Your task to perform on an android device: turn notification dots off Image 0: 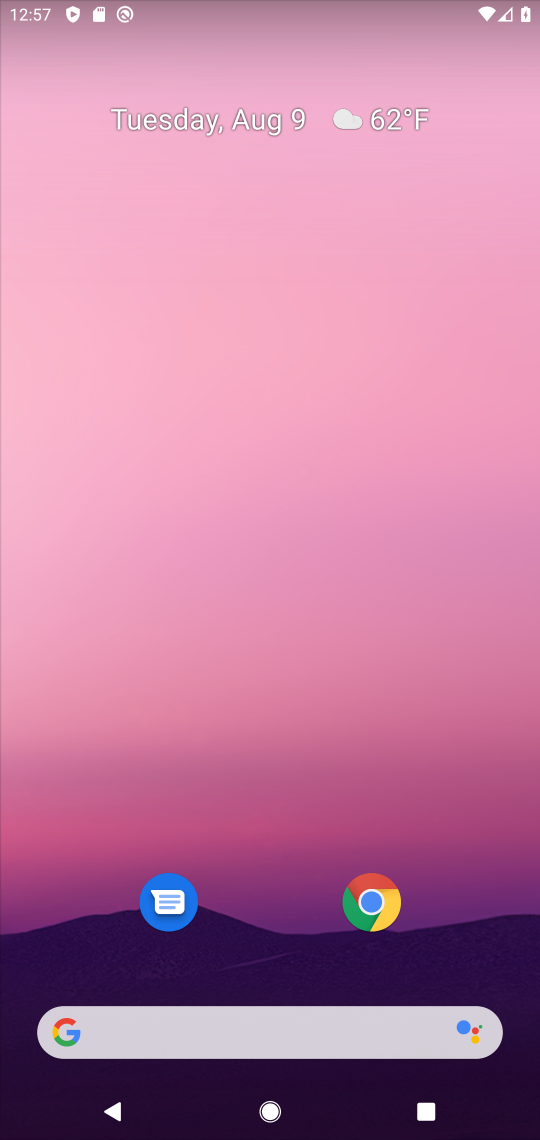
Step 0: drag from (307, 1020) to (178, 293)
Your task to perform on an android device: turn notification dots off Image 1: 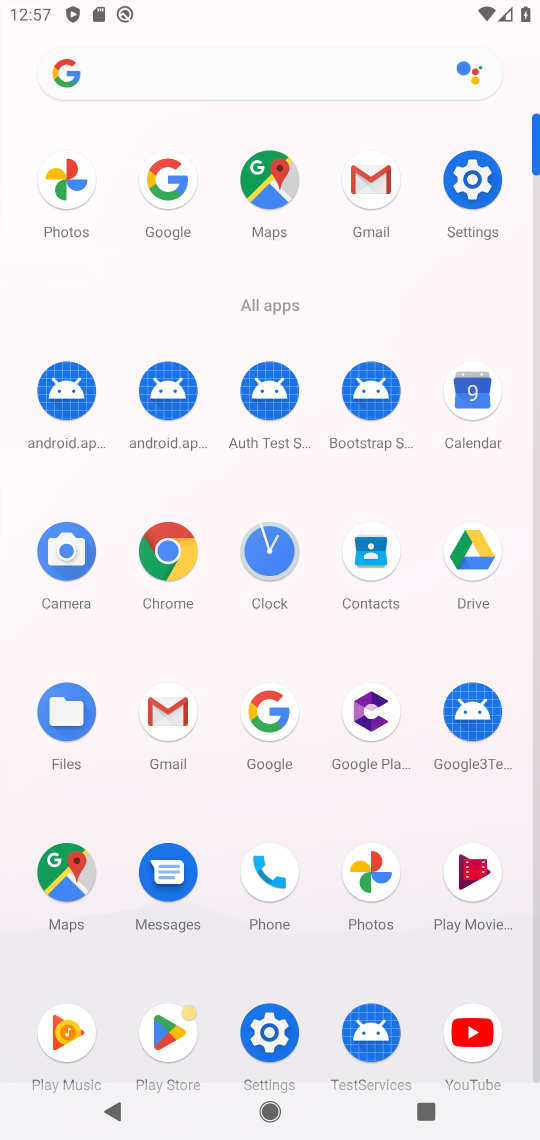
Step 1: click (478, 180)
Your task to perform on an android device: turn notification dots off Image 2: 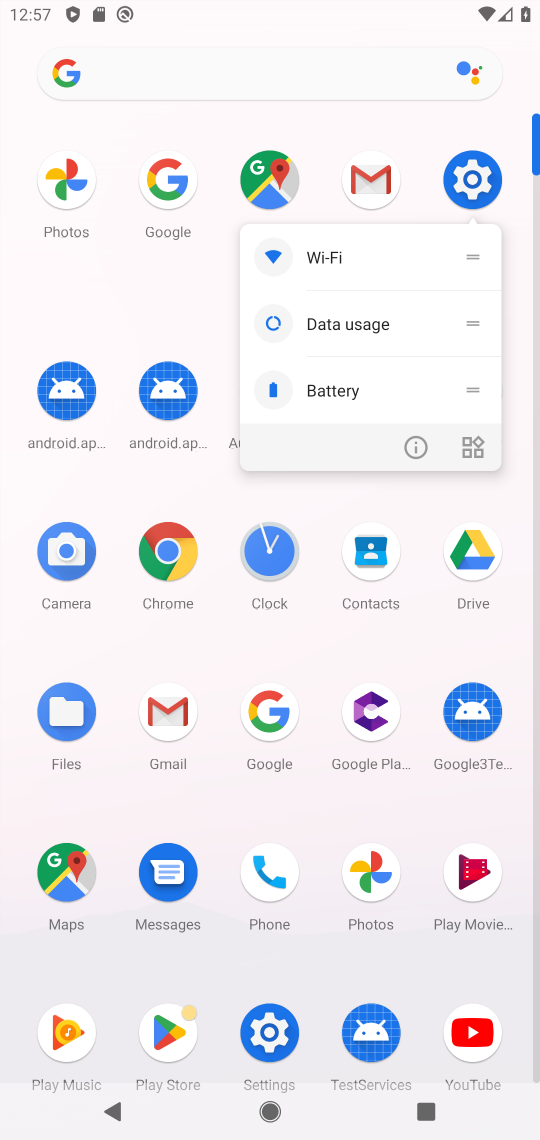
Step 2: click (478, 170)
Your task to perform on an android device: turn notification dots off Image 3: 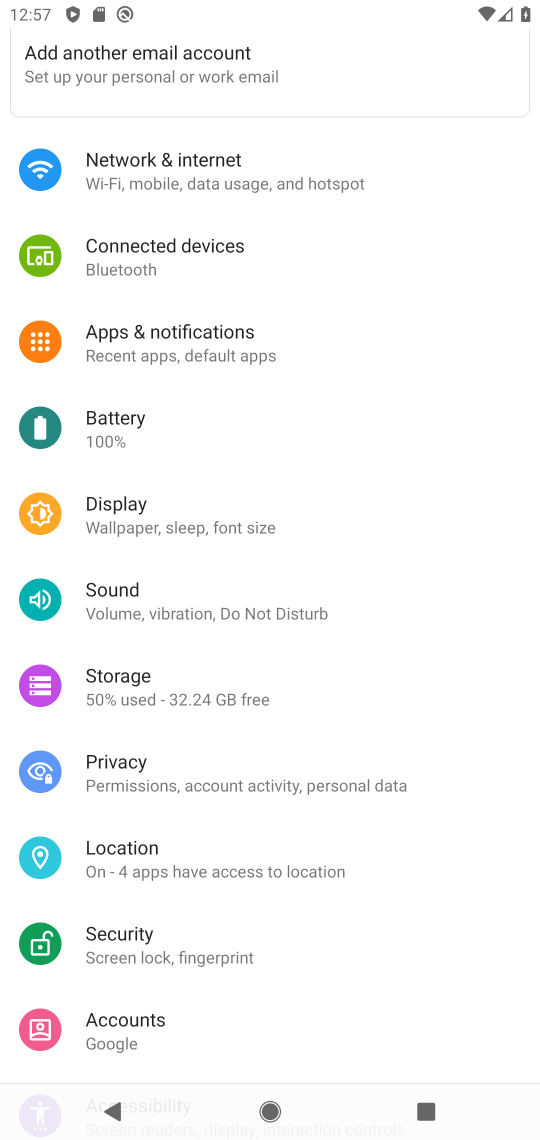
Step 3: click (169, 339)
Your task to perform on an android device: turn notification dots off Image 4: 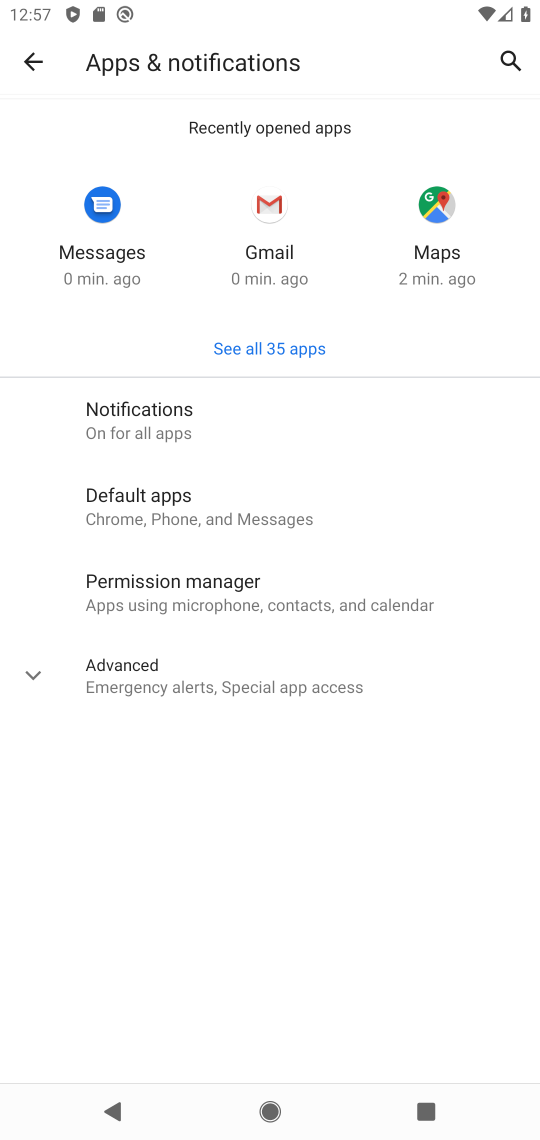
Step 4: click (115, 664)
Your task to perform on an android device: turn notification dots off Image 5: 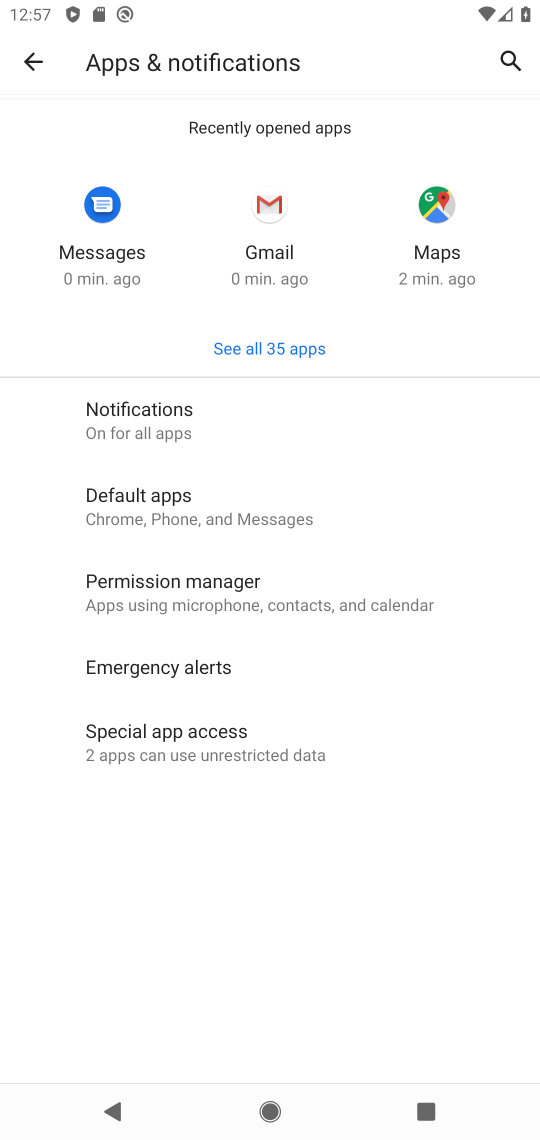
Step 5: click (160, 416)
Your task to perform on an android device: turn notification dots off Image 6: 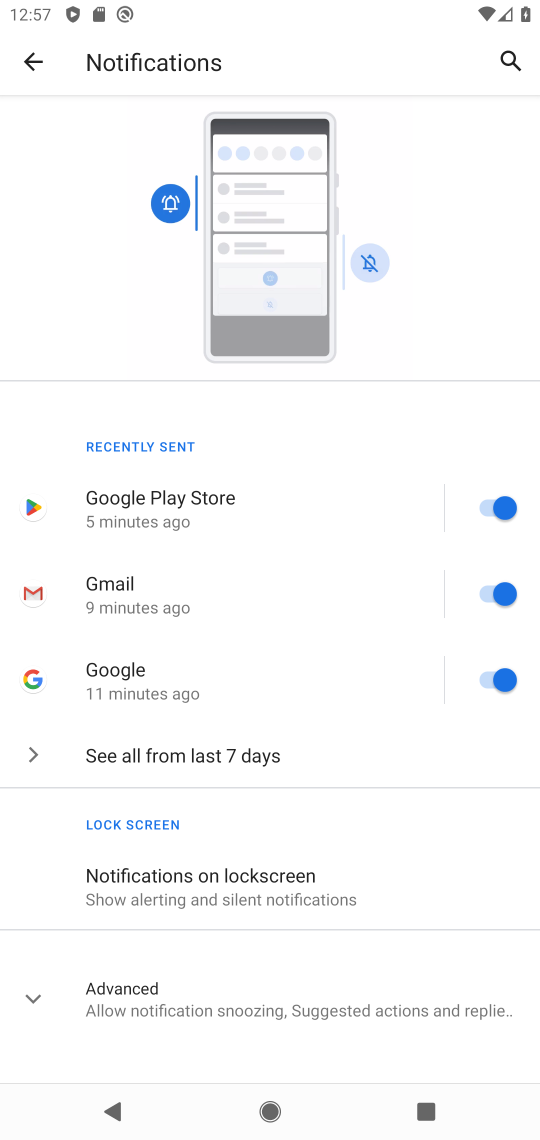
Step 6: click (131, 402)
Your task to perform on an android device: turn notification dots off Image 7: 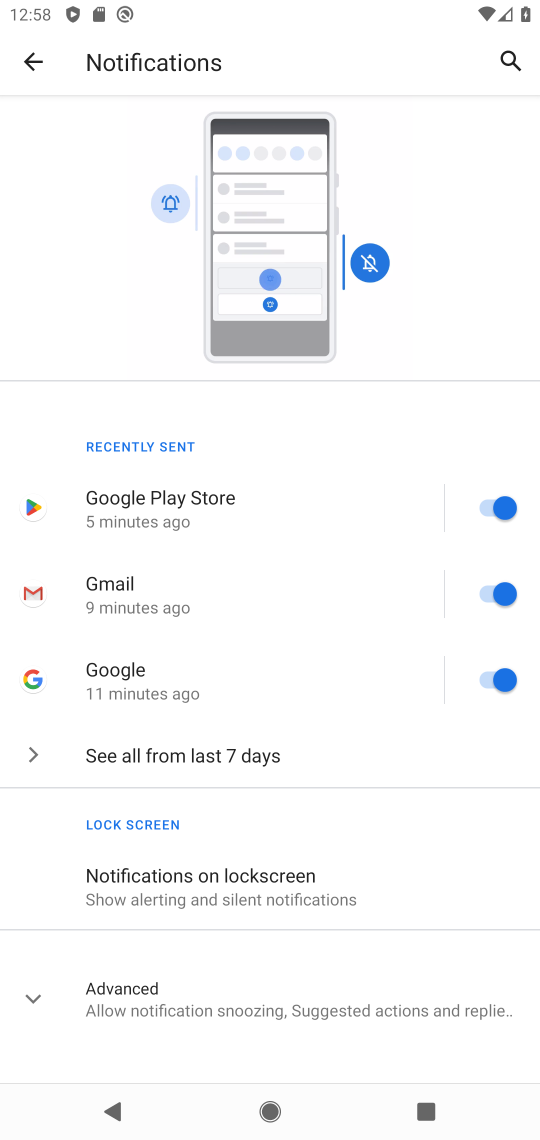
Step 7: drag from (250, 922) to (100, 413)
Your task to perform on an android device: turn notification dots off Image 8: 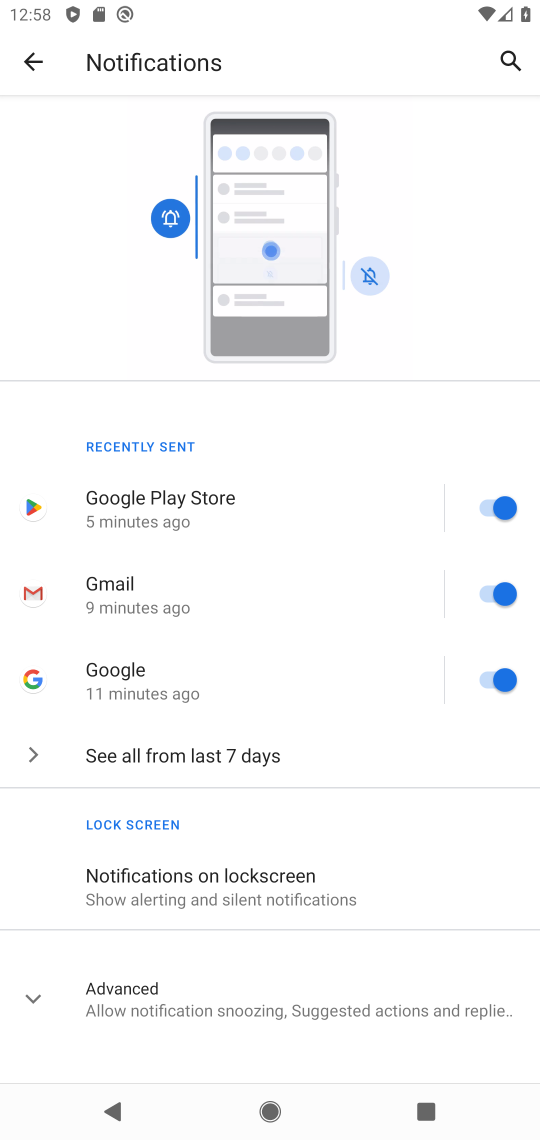
Step 8: click (119, 996)
Your task to perform on an android device: turn notification dots off Image 9: 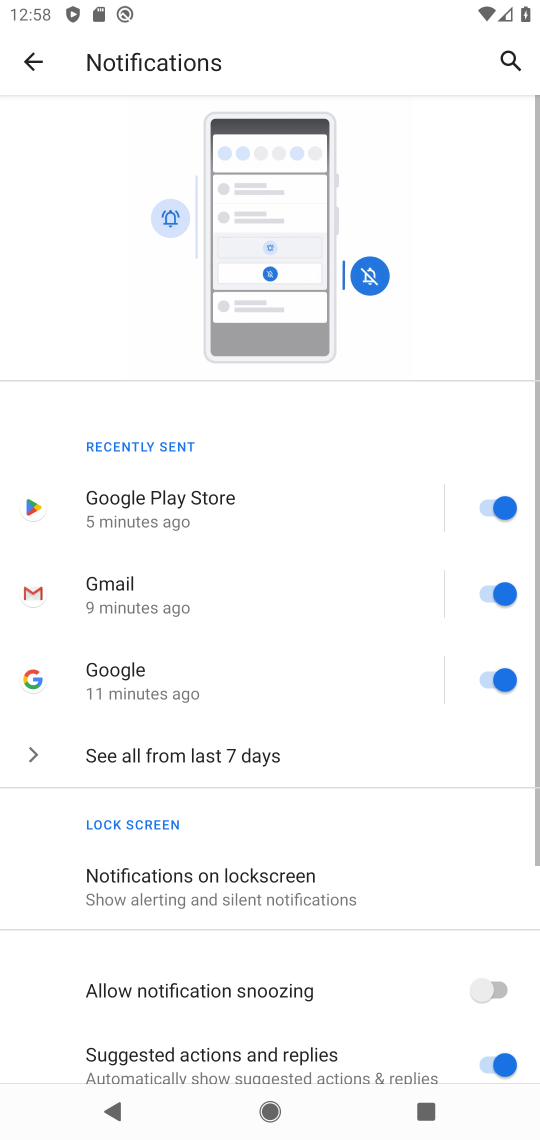
Step 9: click (116, 410)
Your task to perform on an android device: turn notification dots off Image 10: 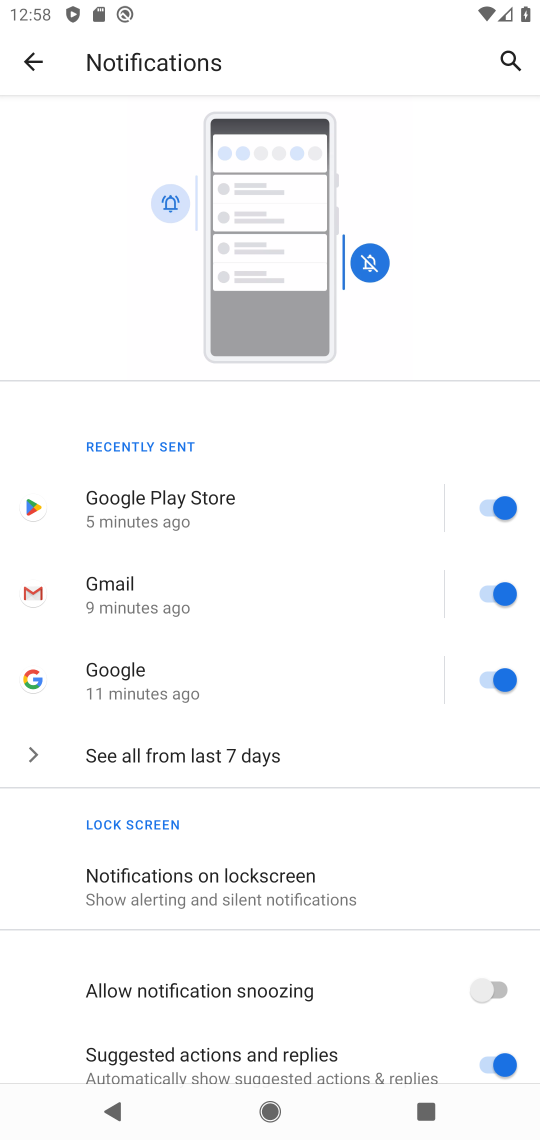
Step 10: drag from (436, 1046) to (393, 502)
Your task to perform on an android device: turn notification dots off Image 11: 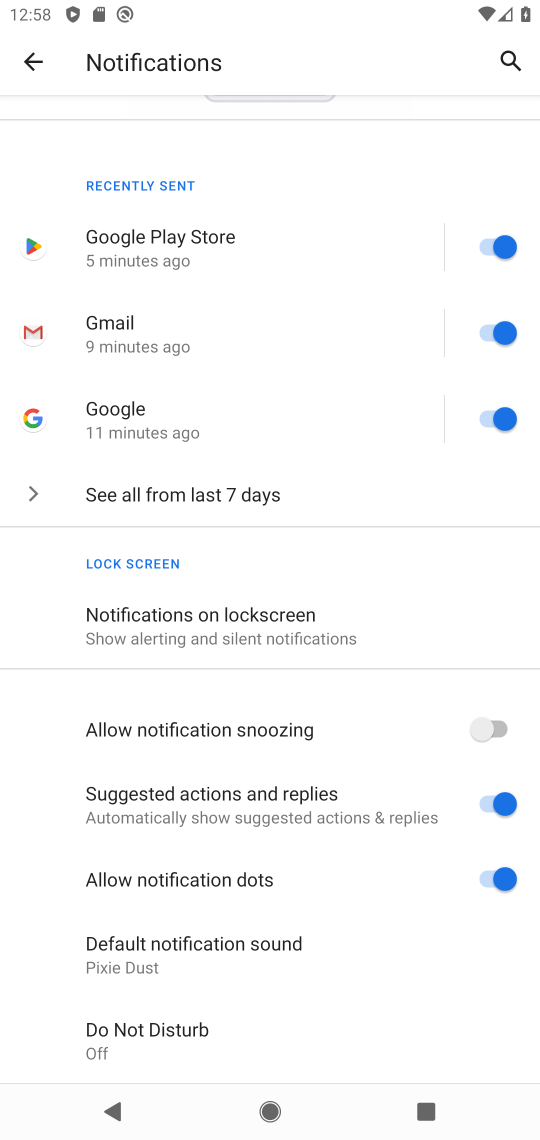
Step 11: click (482, 873)
Your task to perform on an android device: turn notification dots off Image 12: 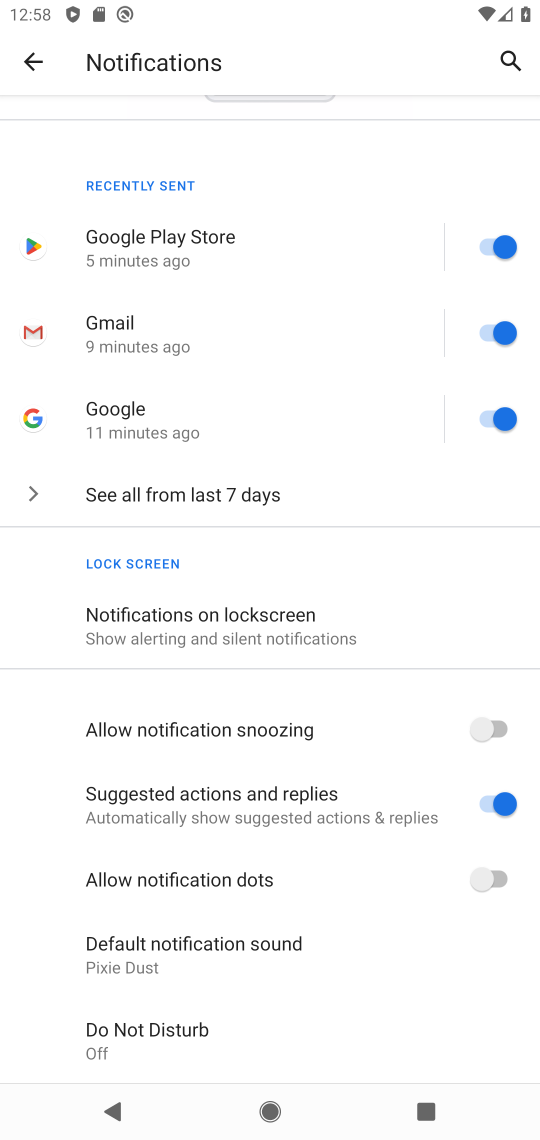
Step 12: task complete